Your task to perform on an android device: Is it going to rain today? Image 0: 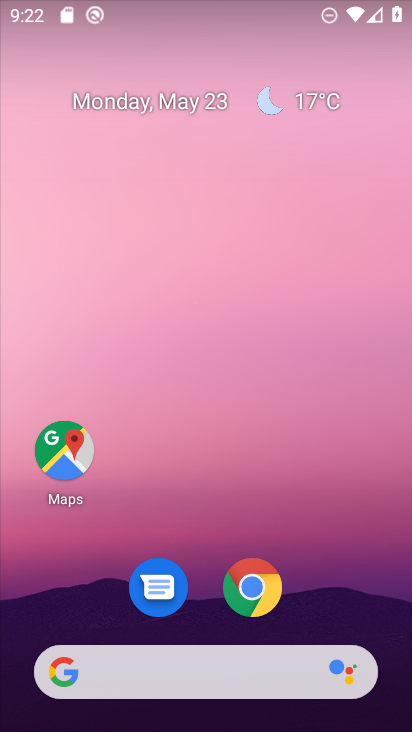
Step 0: click (167, 672)
Your task to perform on an android device: Is it going to rain today? Image 1: 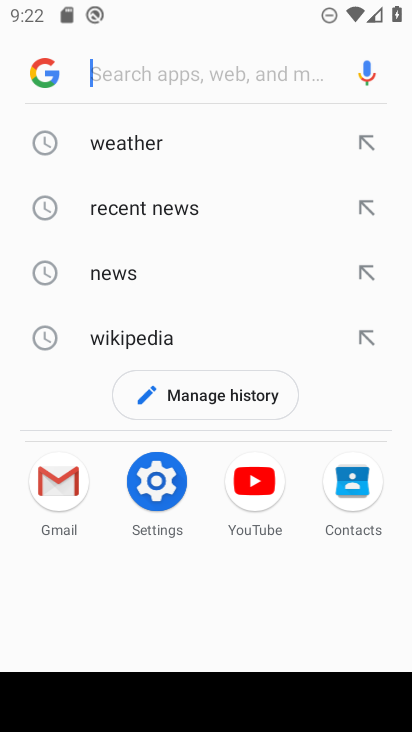
Step 1: click (154, 129)
Your task to perform on an android device: Is it going to rain today? Image 2: 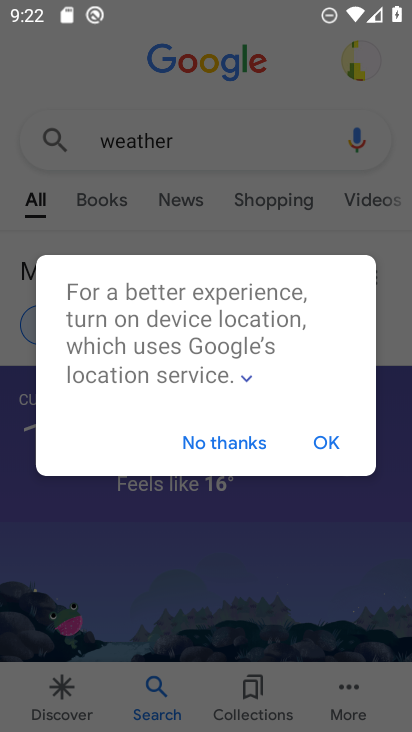
Step 2: click (229, 443)
Your task to perform on an android device: Is it going to rain today? Image 3: 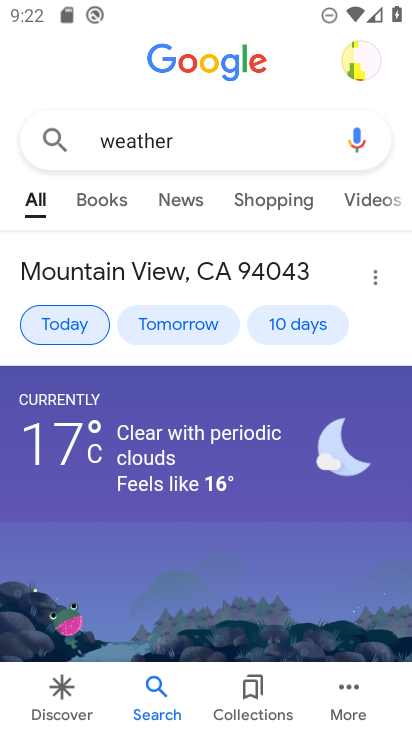
Step 3: task complete